Your task to perform on an android device: Do I have any events this weekend? Image 0: 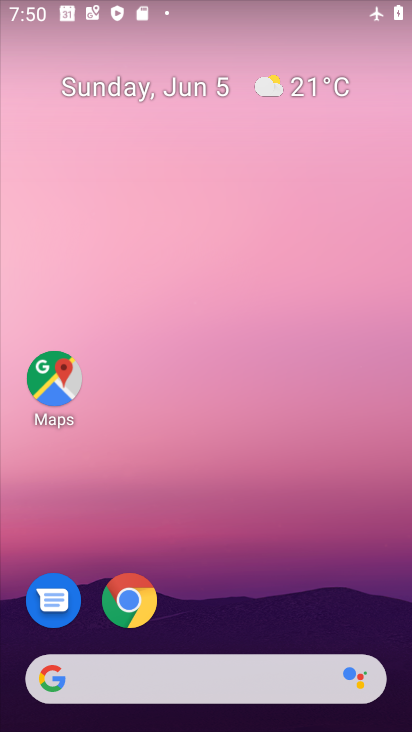
Step 0: drag from (240, 622) to (253, 16)
Your task to perform on an android device: Do I have any events this weekend? Image 1: 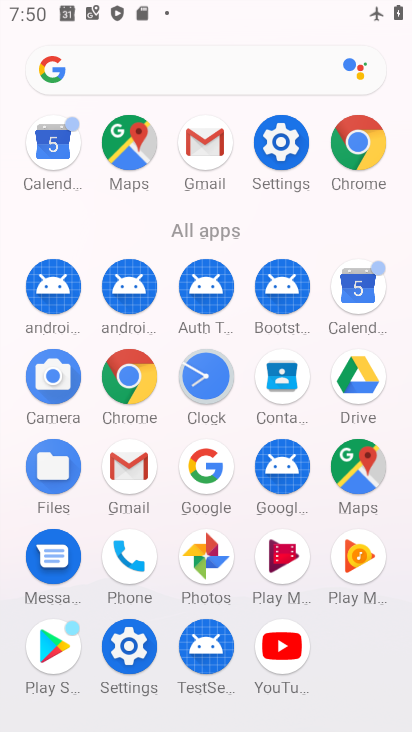
Step 1: click (41, 141)
Your task to perform on an android device: Do I have any events this weekend? Image 2: 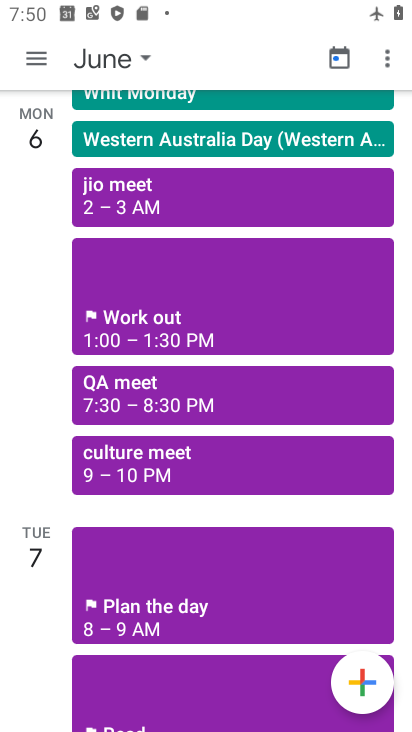
Step 2: task complete